Your task to perform on an android device: Open Google Chrome and open the bookmarks view Image 0: 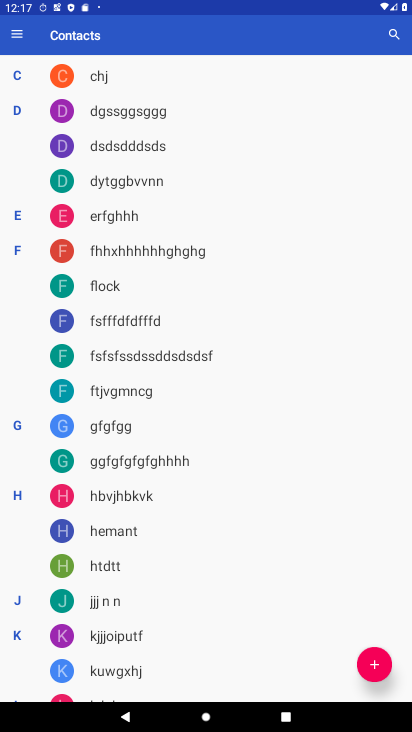
Step 0: press back button
Your task to perform on an android device: Open Google Chrome and open the bookmarks view Image 1: 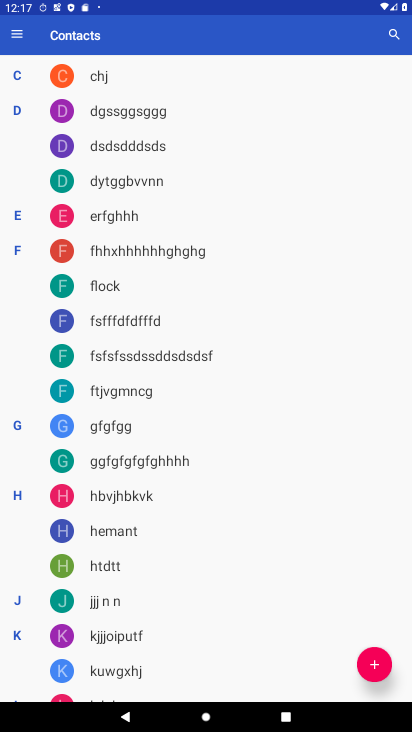
Step 1: press back button
Your task to perform on an android device: Open Google Chrome and open the bookmarks view Image 2: 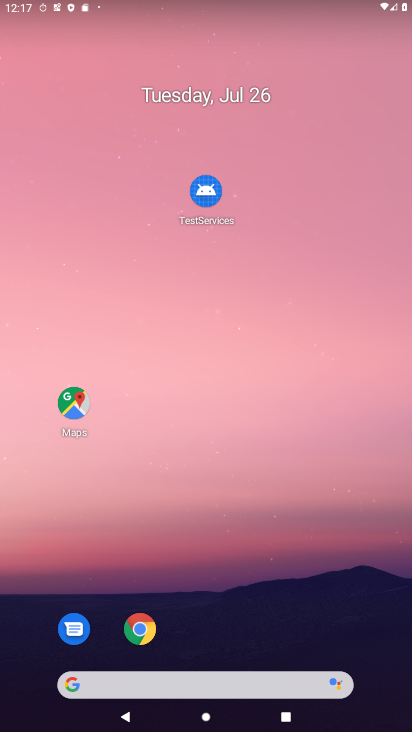
Step 2: drag from (259, 419) to (219, 200)
Your task to perform on an android device: Open Google Chrome and open the bookmarks view Image 3: 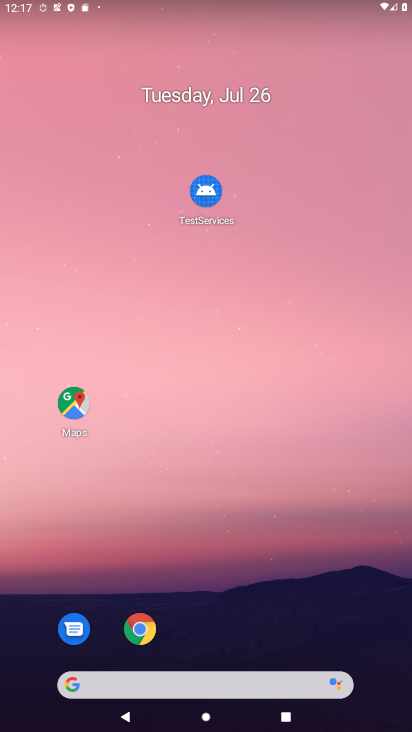
Step 3: drag from (196, 569) to (195, 213)
Your task to perform on an android device: Open Google Chrome and open the bookmarks view Image 4: 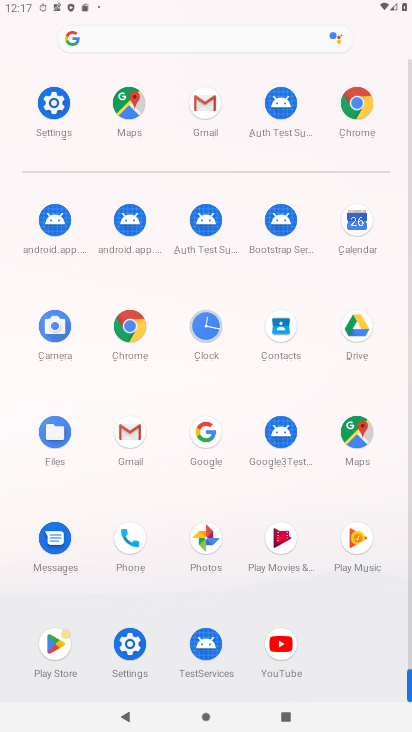
Step 4: click (200, 84)
Your task to perform on an android device: Open Google Chrome and open the bookmarks view Image 5: 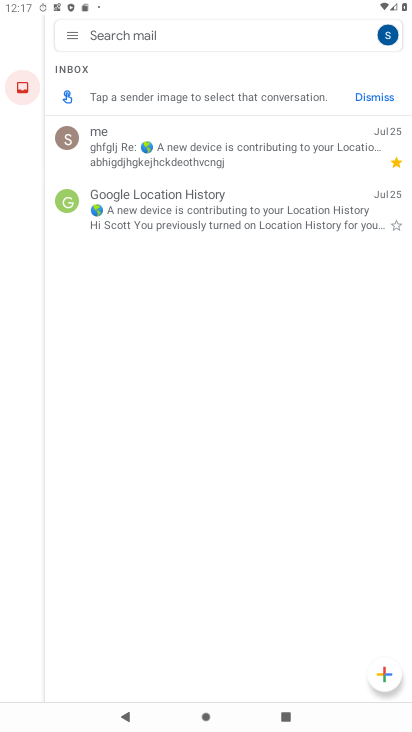
Step 5: press back button
Your task to perform on an android device: Open Google Chrome and open the bookmarks view Image 6: 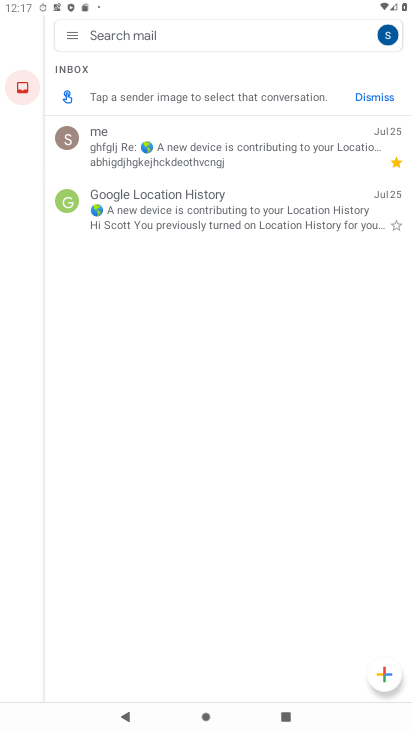
Step 6: press back button
Your task to perform on an android device: Open Google Chrome and open the bookmarks view Image 7: 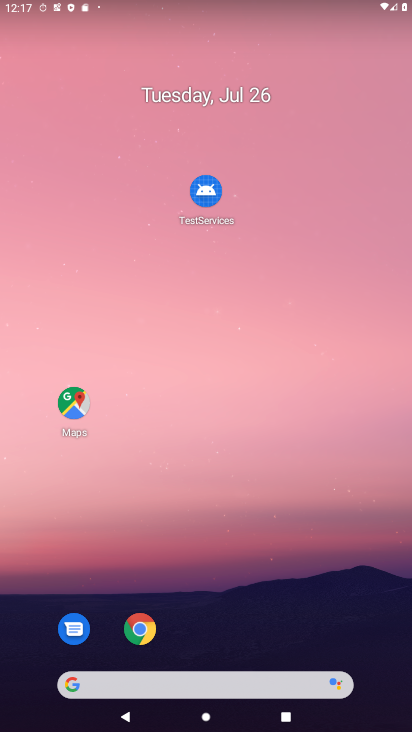
Step 7: click (175, 22)
Your task to perform on an android device: Open Google Chrome and open the bookmarks view Image 8: 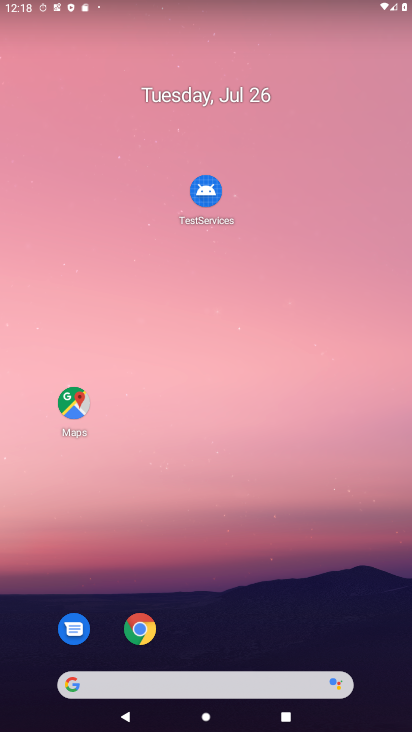
Step 8: drag from (176, 57) to (115, 102)
Your task to perform on an android device: Open Google Chrome and open the bookmarks view Image 9: 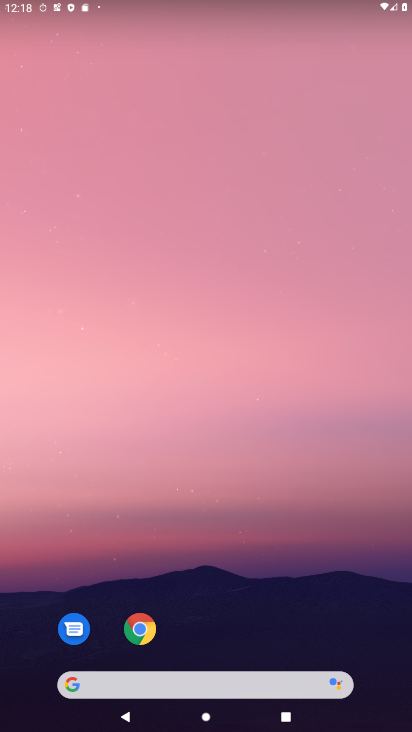
Step 9: drag from (171, 480) to (168, 84)
Your task to perform on an android device: Open Google Chrome and open the bookmarks view Image 10: 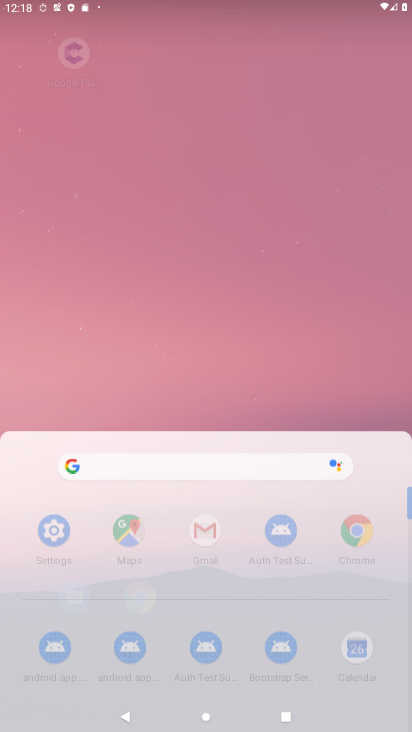
Step 10: drag from (213, 515) to (162, 9)
Your task to perform on an android device: Open Google Chrome and open the bookmarks view Image 11: 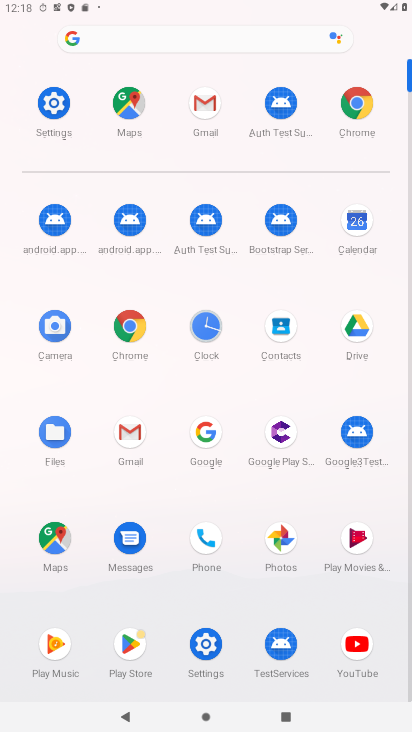
Step 11: click (135, 325)
Your task to perform on an android device: Open Google Chrome and open the bookmarks view Image 12: 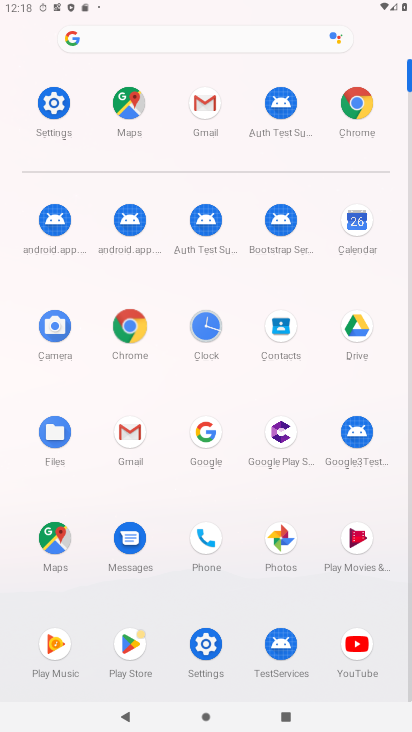
Step 12: click (135, 325)
Your task to perform on an android device: Open Google Chrome and open the bookmarks view Image 13: 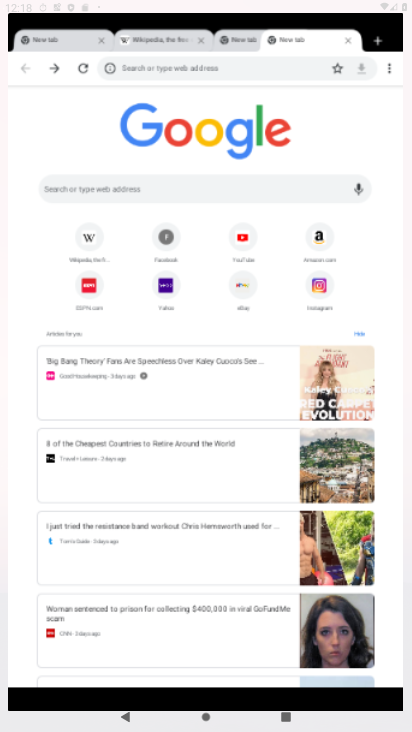
Step 13: click (136, 325)
Your task to perform on an android device: Open Google Chrome and open the bookmarks view Image 14: 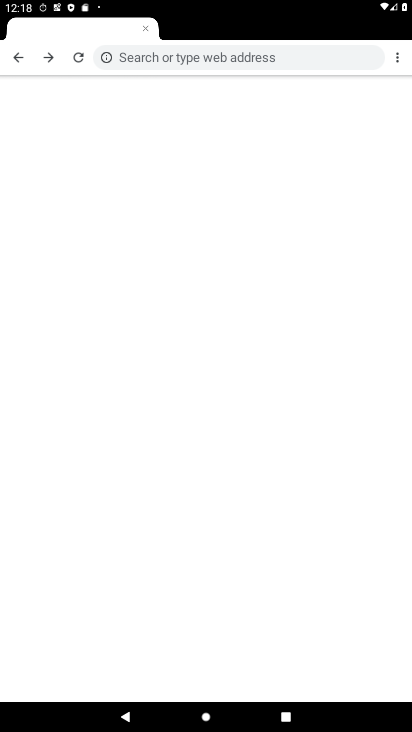
Step 14: click (138, 327)
Your task to perform on an android device: Open Google Chrome and open the bookmarks view Image 15: 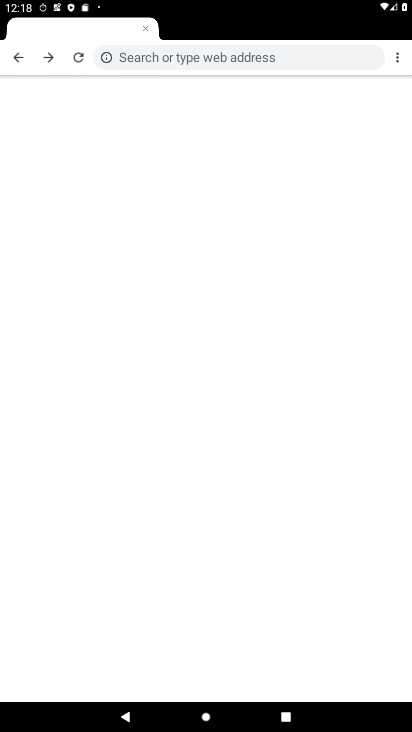
Step 15: click (138, 327)
Your task to perform on an android device: Open Google Chrome and open the bookmarks view Image 16: 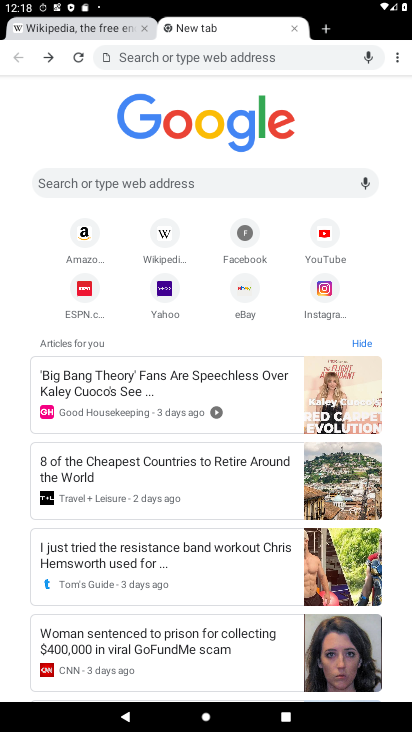
Step 16: click (295, 26)
Your task to perform on an android device: Open Google Chrome and open the bookmarks view Image 17: 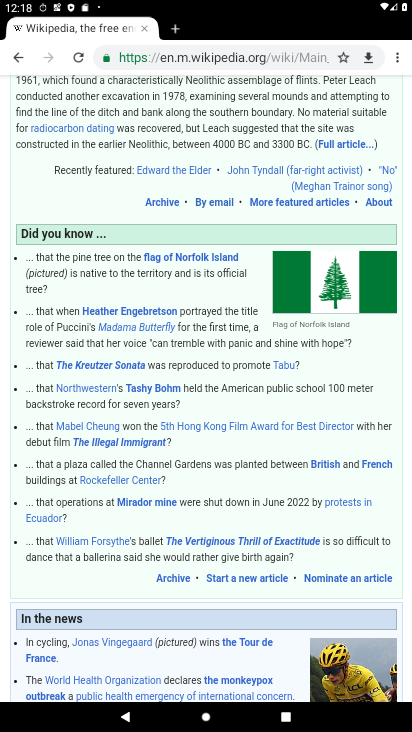
Step 17: drag from (398, 58) to (277, 111)
Your task to perform on an android device: Open Google Chrome and open the bookmarks view Image 18: 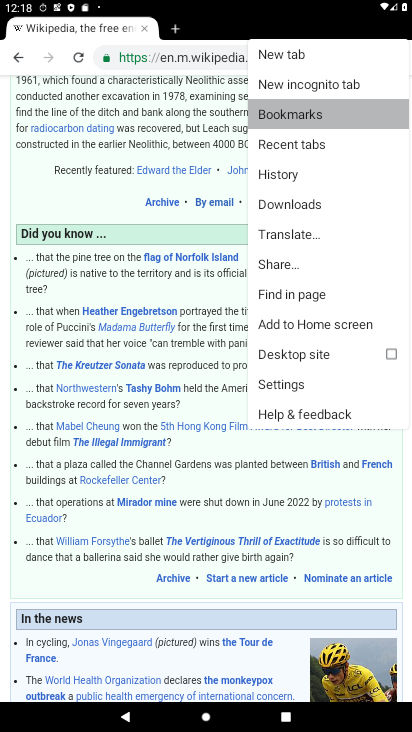
Step 18: click (276, 107)
Your task to perform on an android device: Open Google Chrome and open the bookmarks view Image 19: 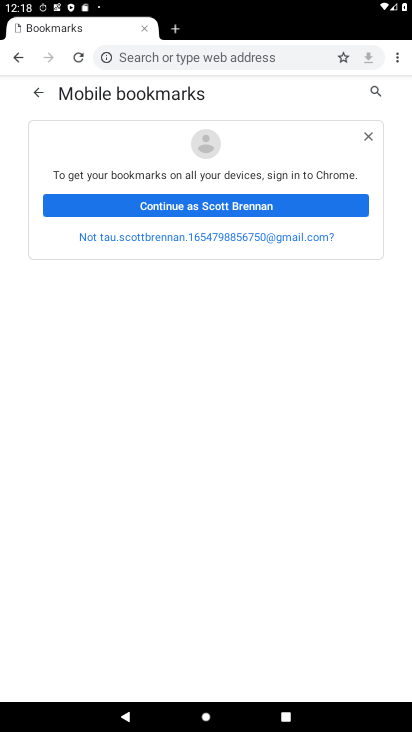
Step 19: task complete